Your task to perform on an android device: Go to location settings Image 0: 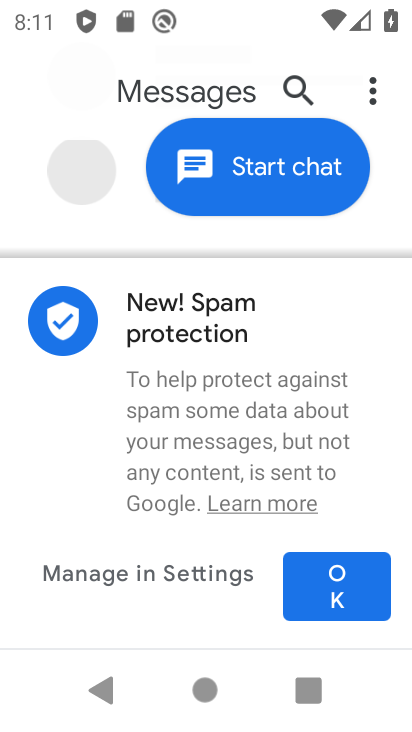
Step 0: press home button
Your task to perform on an android device: Go to location settings Image 1: 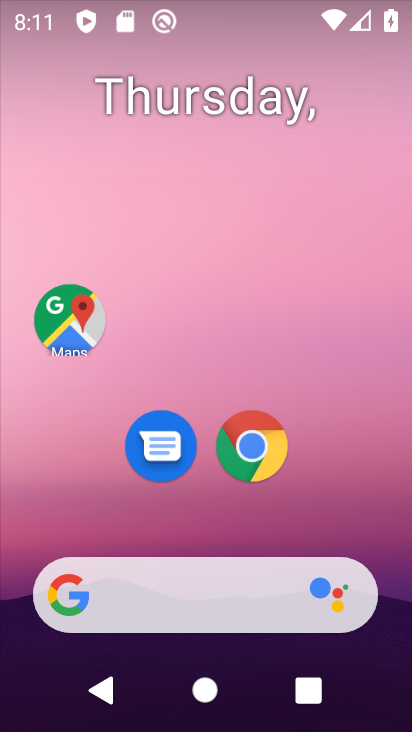
Step 1: drag from (73, 609) to (293, 256)
Your task to perform on an android device: Go to location settings Image 2: 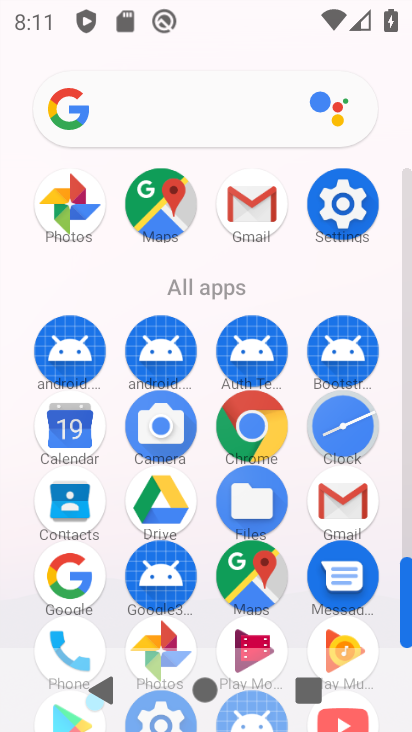
Step 2: click (333, 197)
Your task to perform on an android device: Go to location settings Image 3: 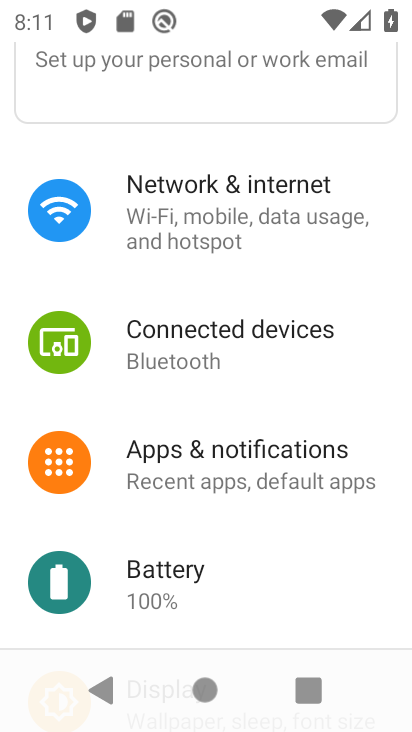
Step 3: drag from (6, 608) to (393, 116)
Your task to perform on an android device: Go to location settings Image 4: 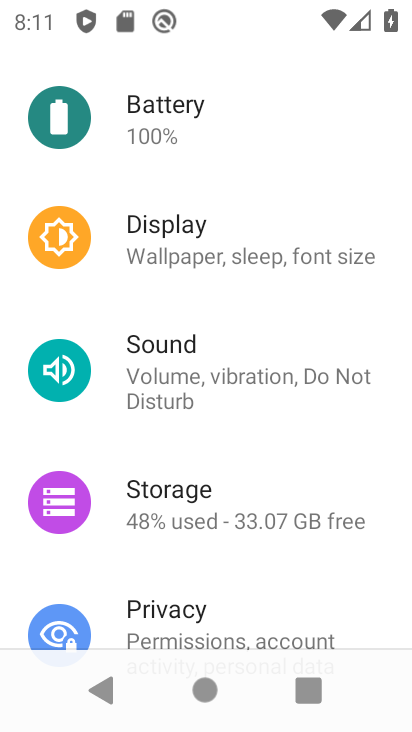
Step 4: drag from (56, 452) to (307, 182)
Your task to perform on an android device: Go to location settings Image 5: 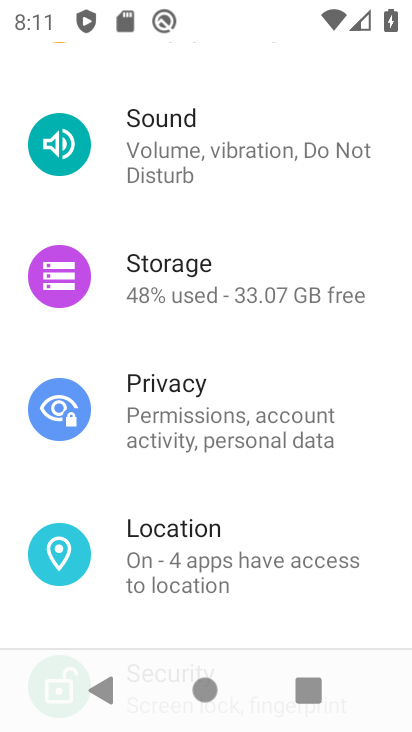
Step 5: click (201, 553)
Your task to perform on an android device: Go to location settings Image 6: 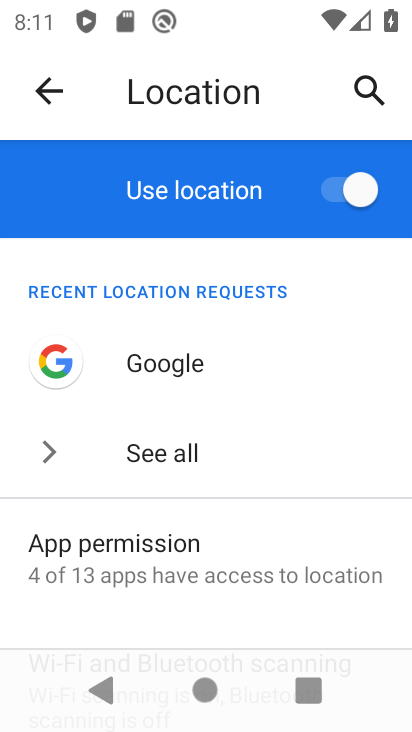
Step 6: task complete